Your task to perform on an android device: Open calendar and show me the first week of next month Image 0: 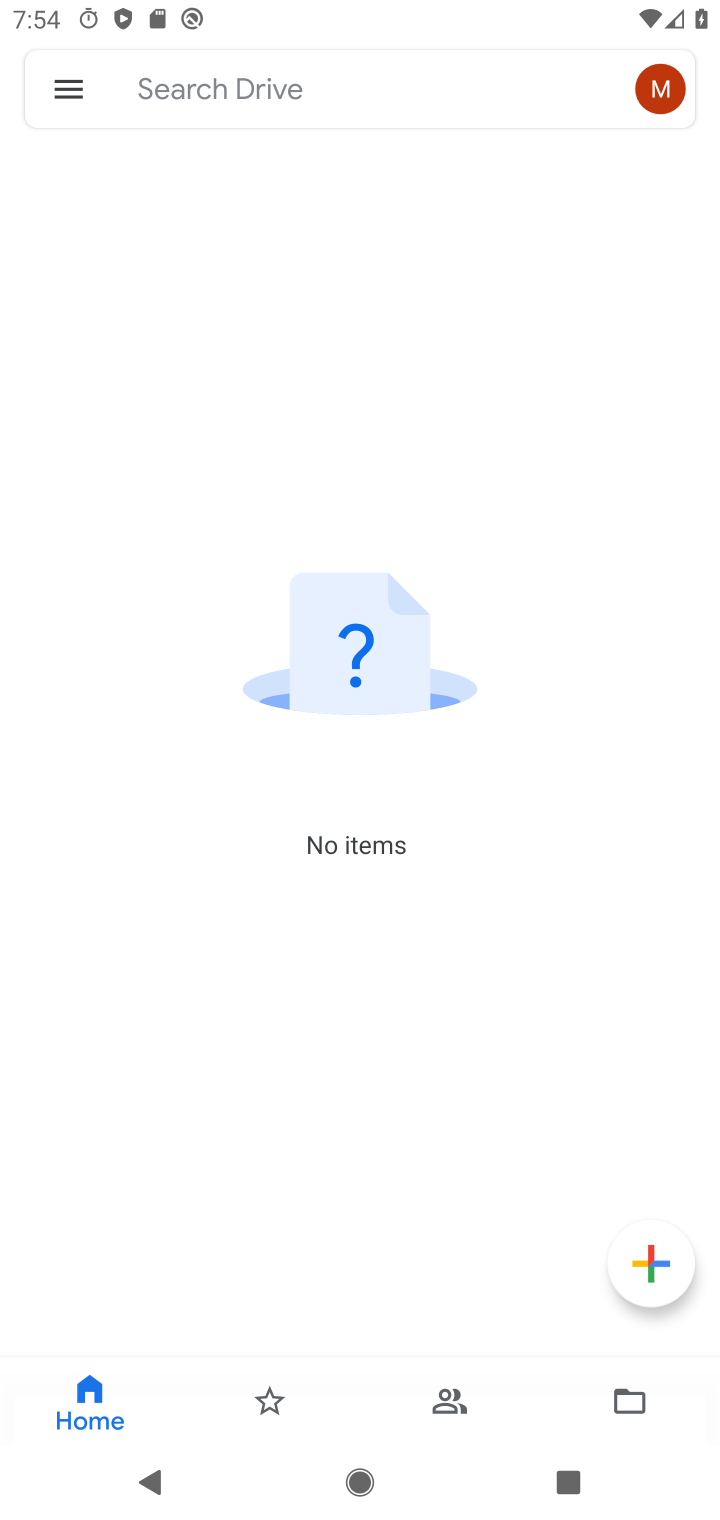
Step 0: press home button
Your task to perform on an android device: Open calendar and show me the first week of next month Image 1: 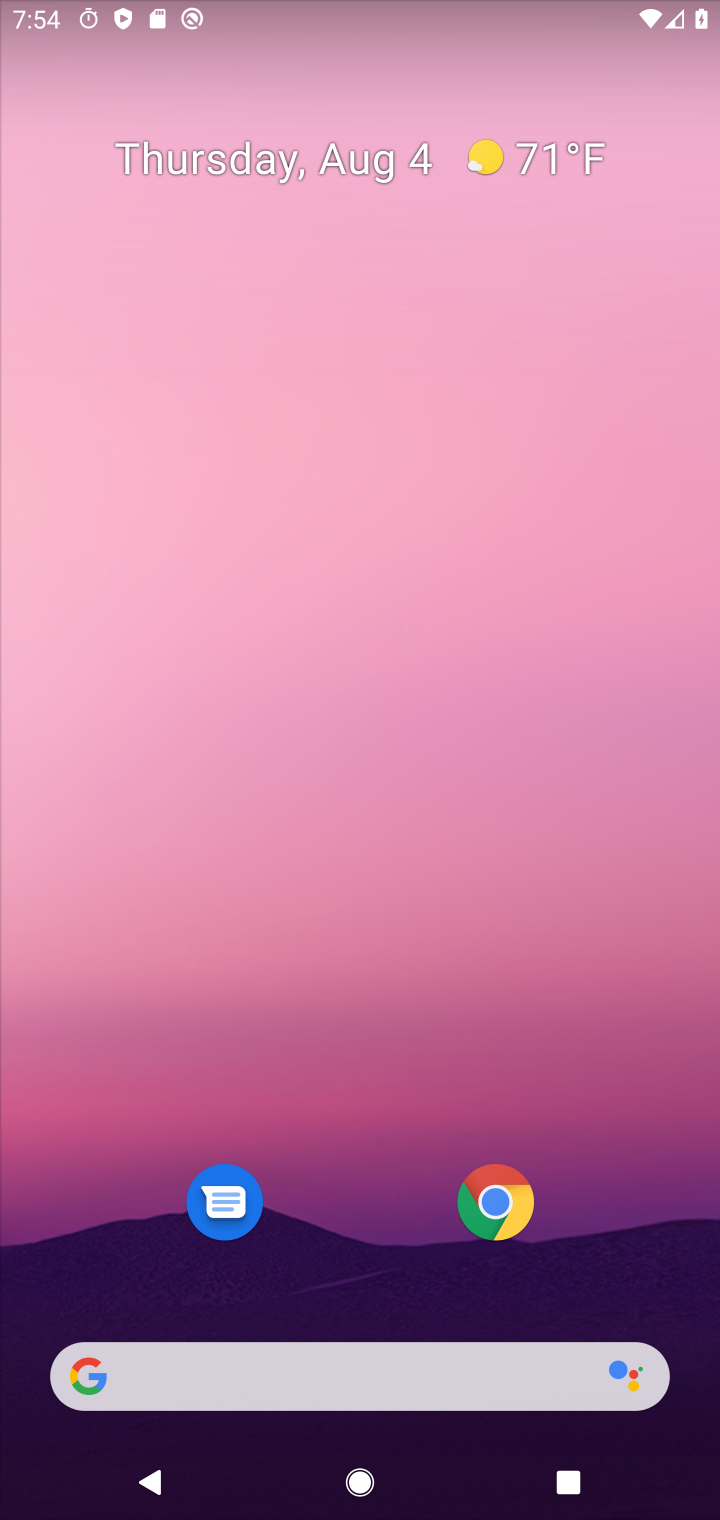
Step 1: drag from (385, 1203) to (572, 147)
Your task to perform on an android device: Open calendar and show me the first week of next month Image 2: 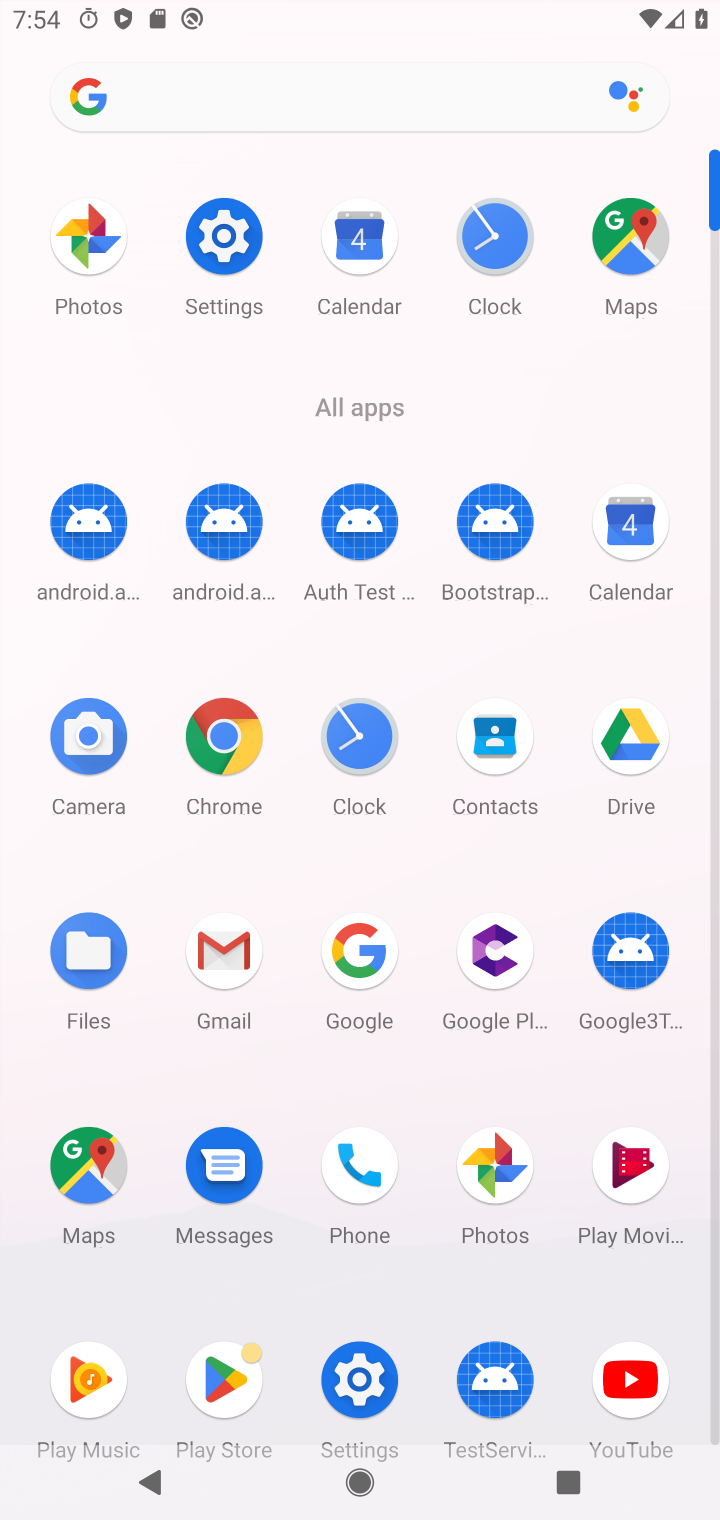
Step 2: click (629, 525)
Your task to perform on an android device: Open calendar and show me the first week of next month Image 3: 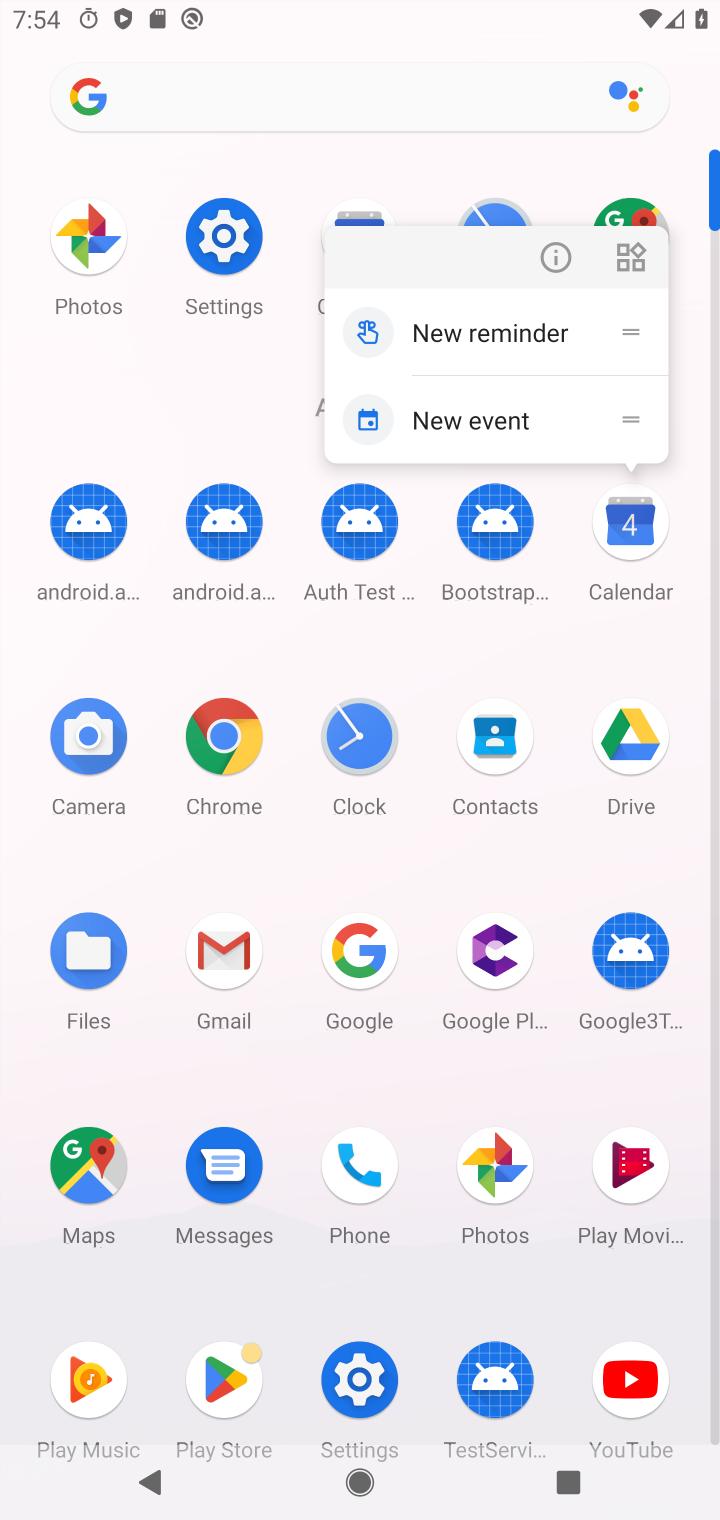
Step 3: click (563, 259)
Your task to perform on an android device: Open calendar and show me the first week of next month Image 4: 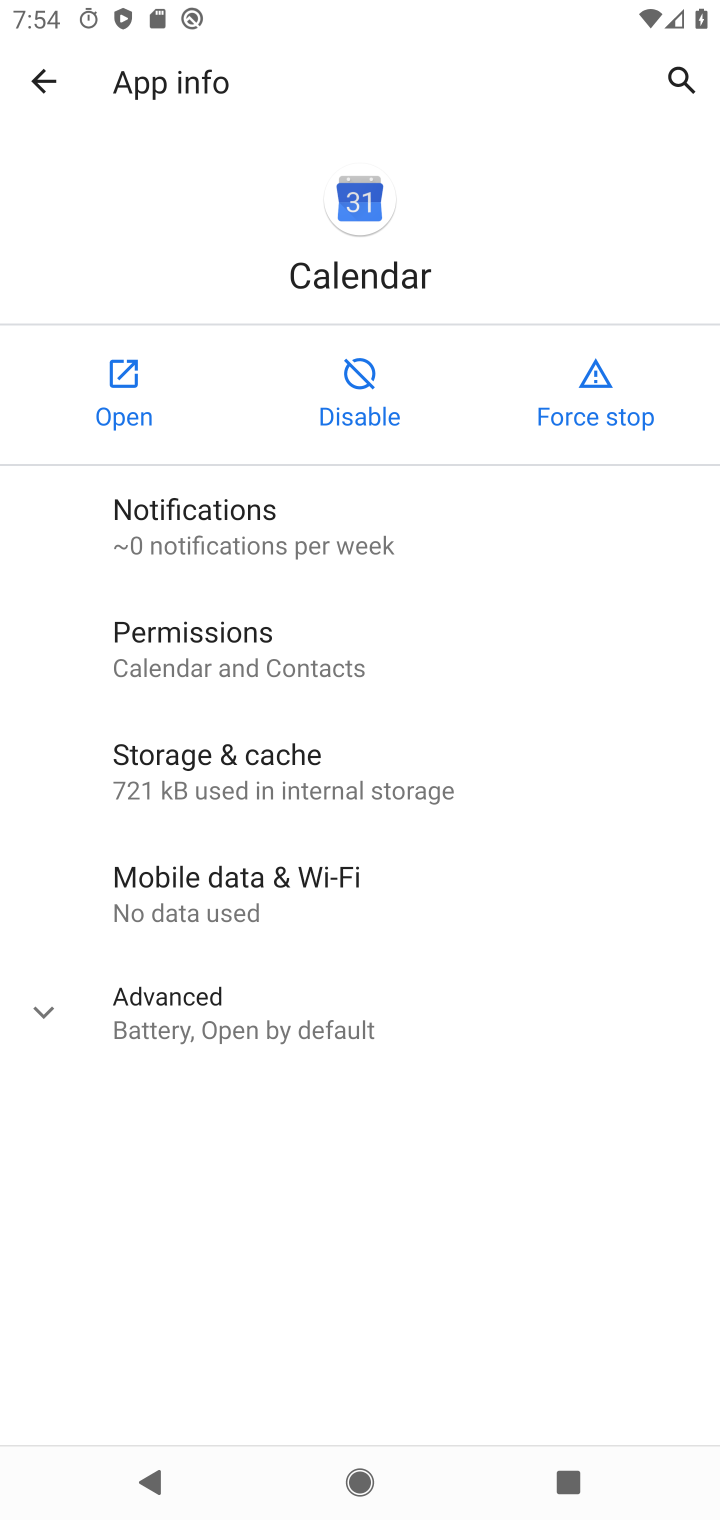
Step 4: click (134, 401)
Your task to perform on an android device: Open calendar and show me the first week of next month Image 5: 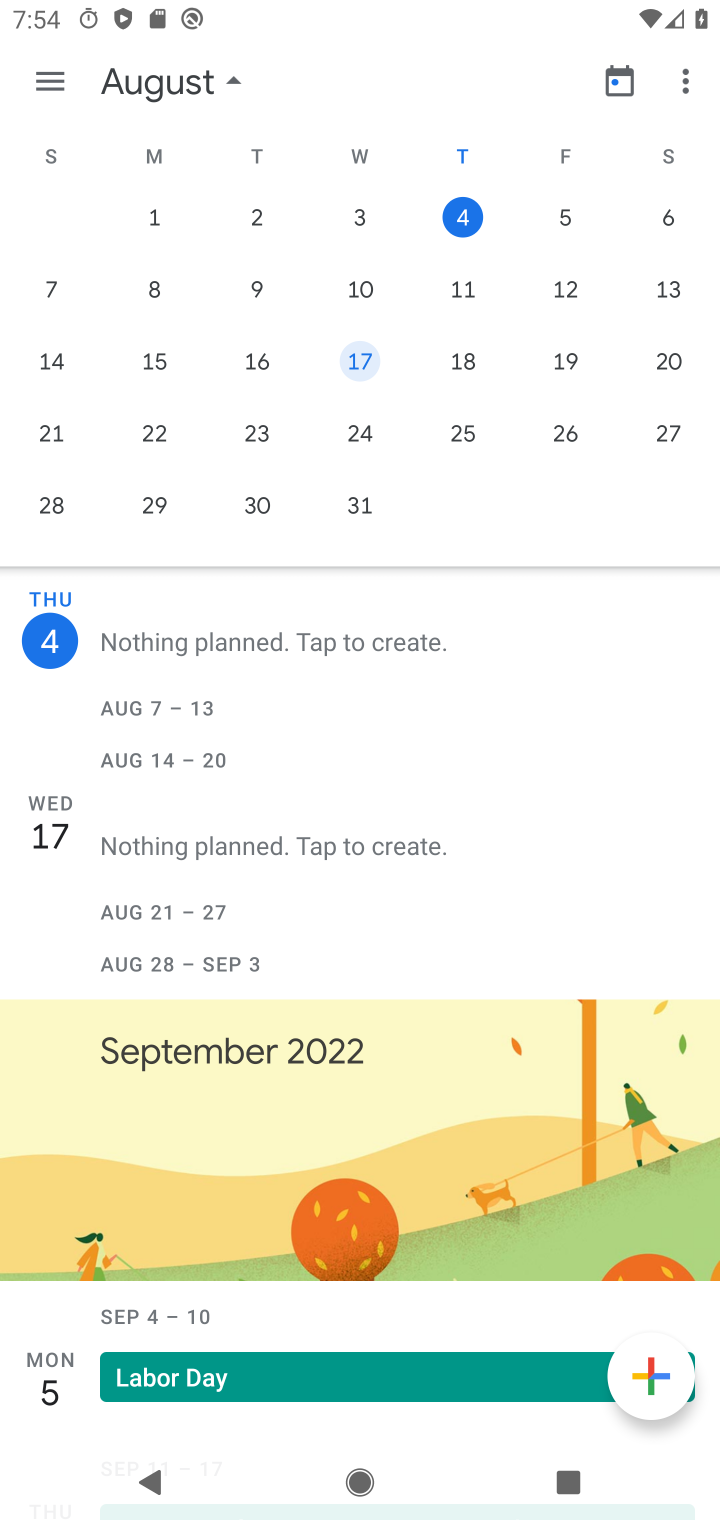
Step 5: drag from (608, 361) to (11, 424)
Your task to perform on an android device: Open calendar and show me the first week of next month Image 6: 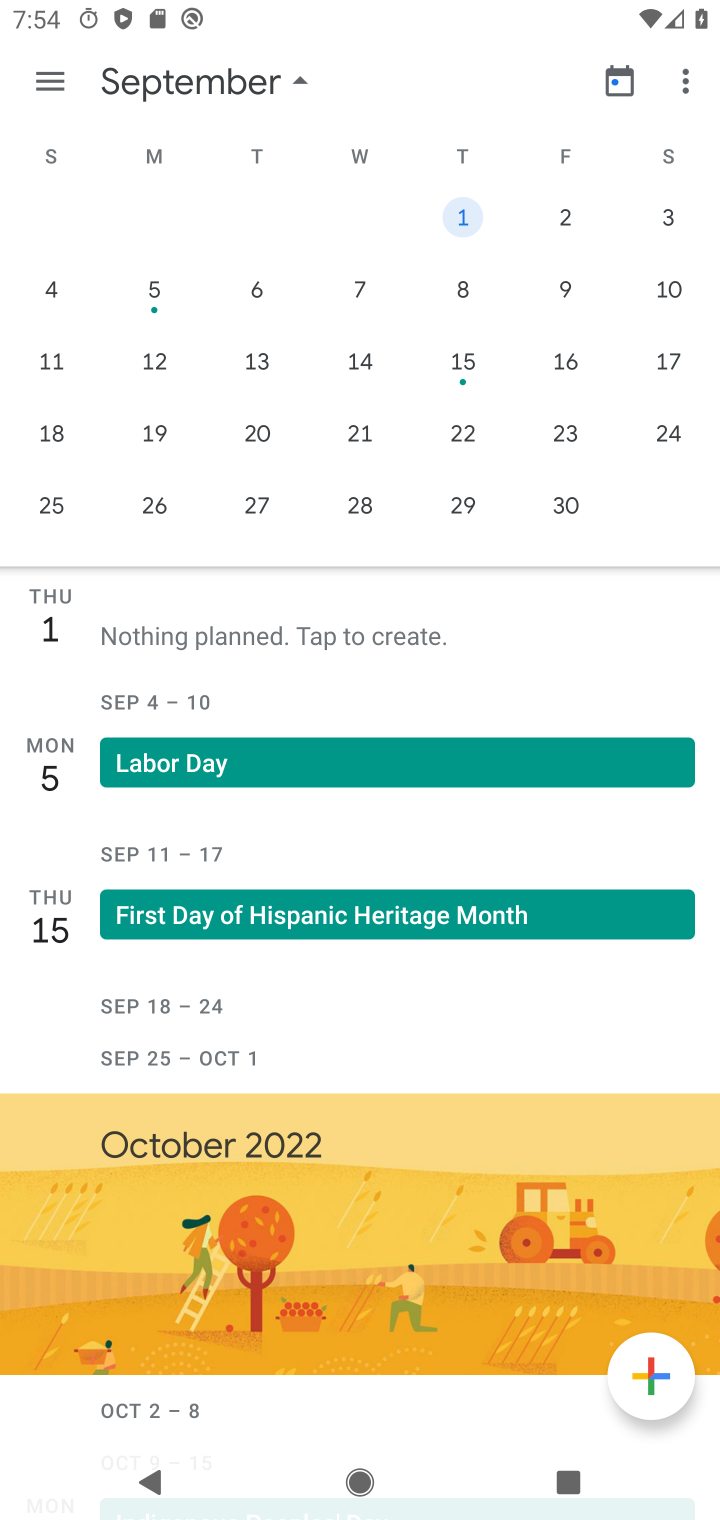
Step 6: click (557, 224)
Your task to perform on an android device: Open calendar and show me the first week of next month Image 7: 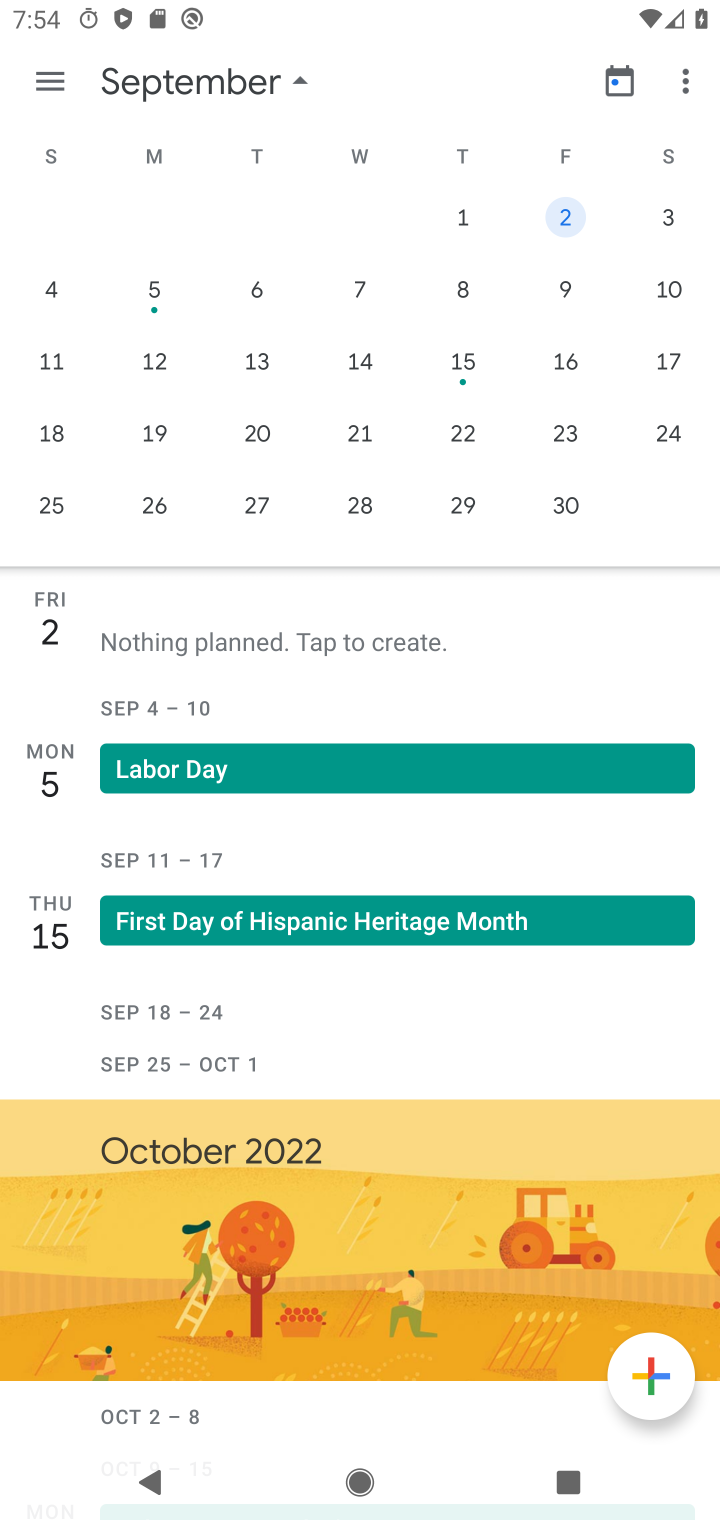
Step 7: task complete